Your task to perform on an android device: Open Youtube and go to the subscriptions tab Image 0: 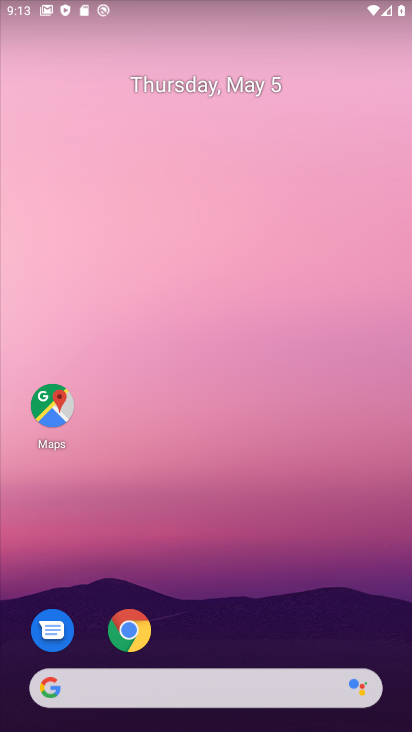
Step 0: drag from (211, 538) to (261, 127)
Your task to perform on an android device: Open Youtube and go to the subscriptions tab Image 1: 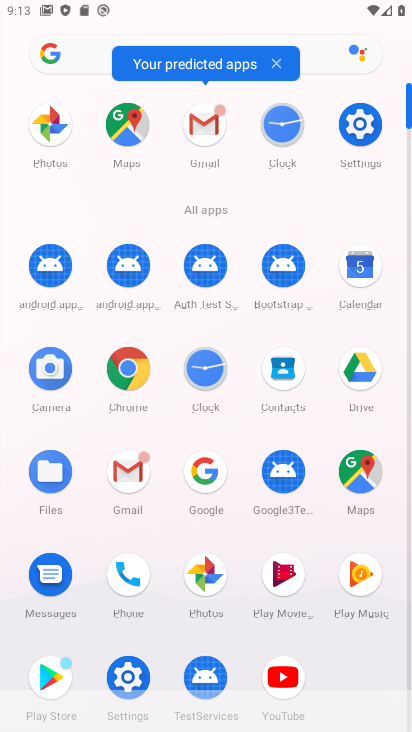
Step 1: click (280, 667)
Your task to perform on an android device: Open Youtube and go to the subscriptions tab Image 2: 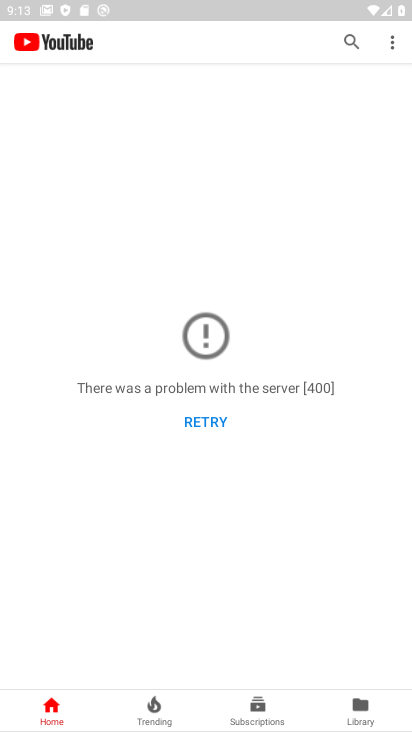
Step 2: click (259, 717)
Your task to perform on an android device: Open Youtube and go to the subscriptions tab Image 3: 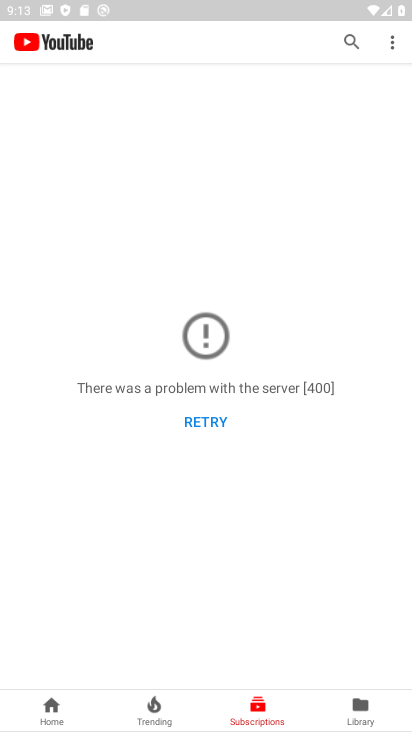
Step 3: task complete